Your task to perform on an android device: turn smart compose on in the gmail app Image 0: 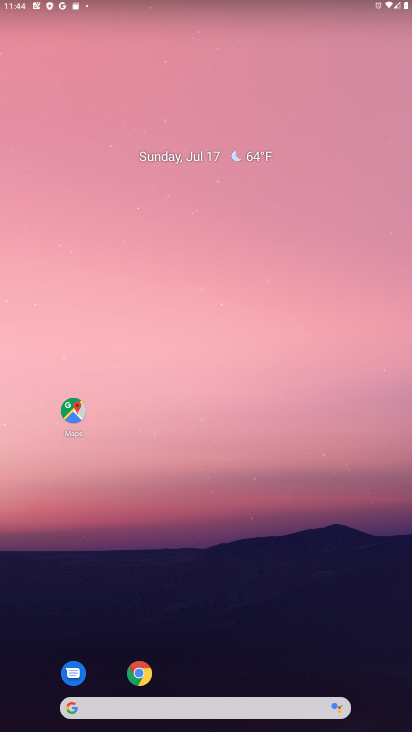
Step 0: drag from (227, 684) to (220, 159)
Your task to perform on an android device: turn smart compose on in the gmail app Image 1: 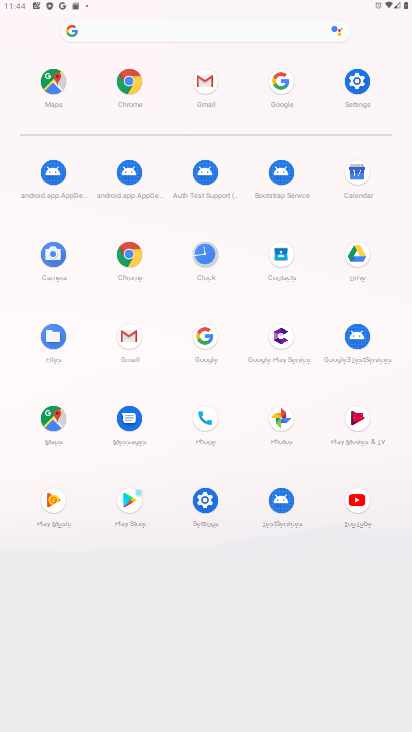
Step 1: click (202, 77)
Your task to perform on an android device: turn smart compose on in the gmail app Image 2: 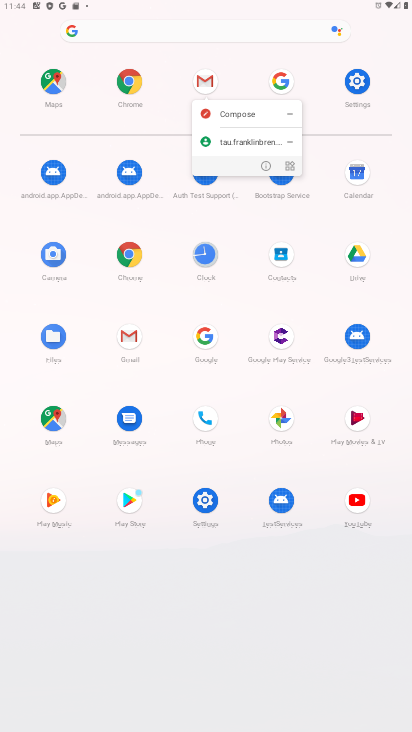
Step 2: click (203, 78)
Your task to perform on an android device: turn smart compose on in the gmail app Image 3: 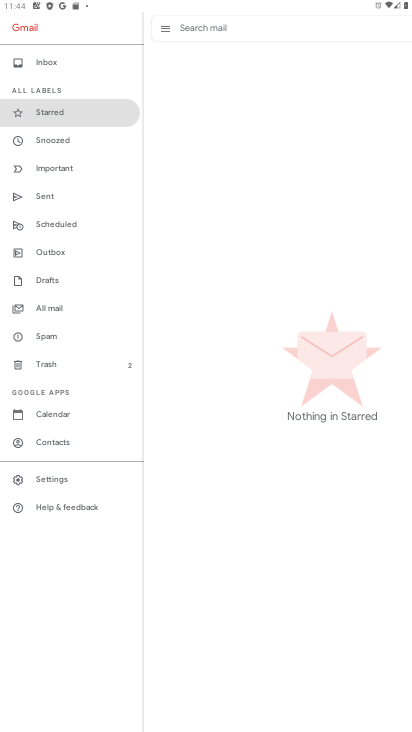
Step 3: click (58, 484)
Your task to perform on an android device: turn smart compose on in the gmail app Image 4: 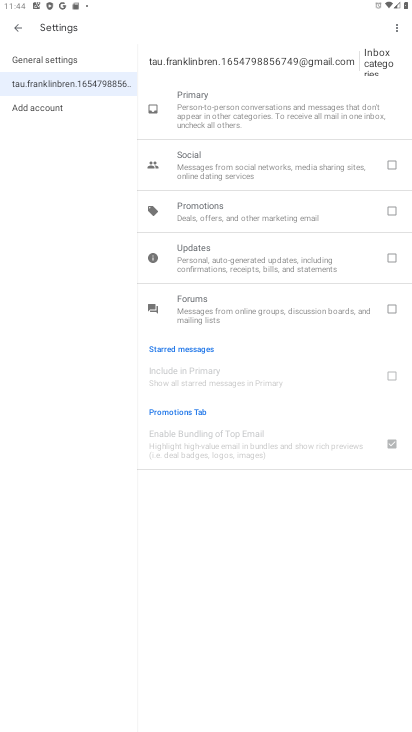
Step 4: click (72, 87)
Your task to perform on an android device: turn smart compose on in the gmail app Image 5: 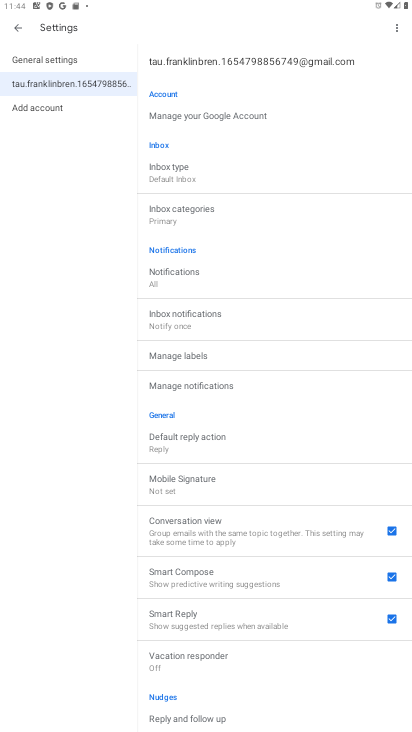
Step 5: task complete